Your task to perform on an android device: Go to accessibility settings Image 0: 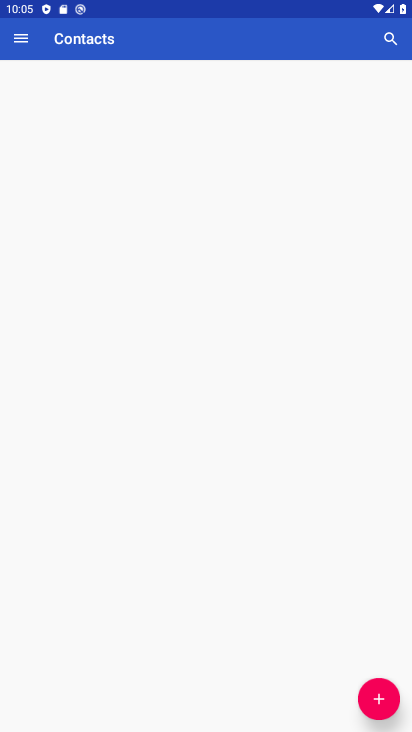
Step 0: drag from (375, 634) to (272, 41)
Your task to perform on an android device: Go to accessibility settings Image 1: 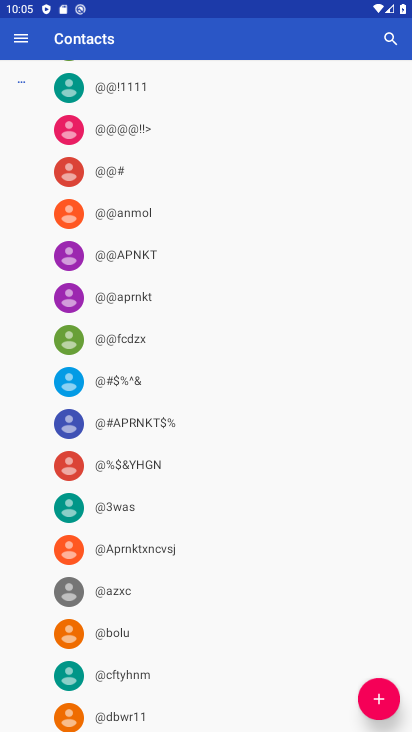
Step 1: press home button
Your task to perform on an android device: Go to accessibility settings Image 2: 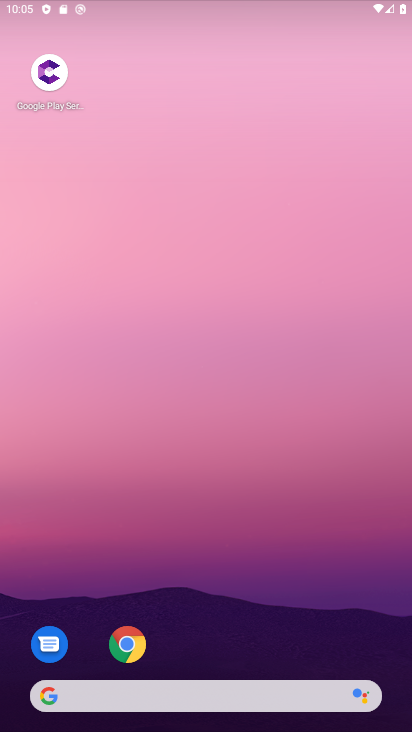
Step 2: drag from (361, 645) to (265, 16)
Your task to perform on an android device: Go to accessibility settings Image 3: 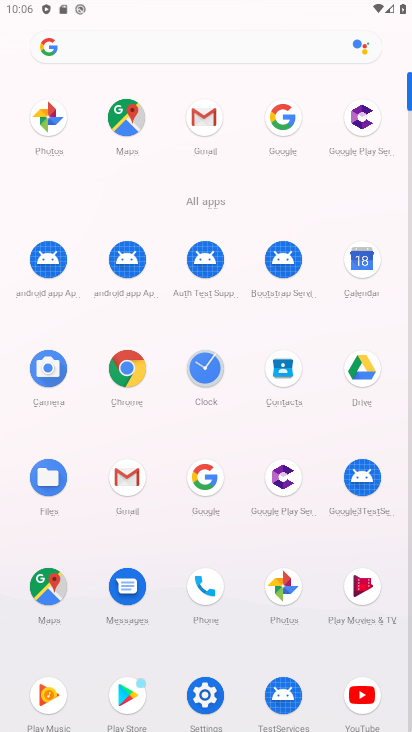
Step 3: click (207, 699)
Your task to perform on an android device: Go to accessibility settings Image 4: 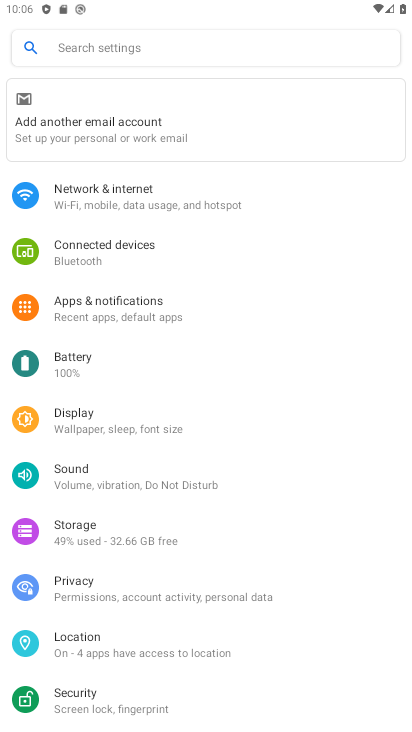
Step 4: drag from (97, 651) to (175, 238)
Your task to perform on an android device: Go to accessibility settings Image 5: 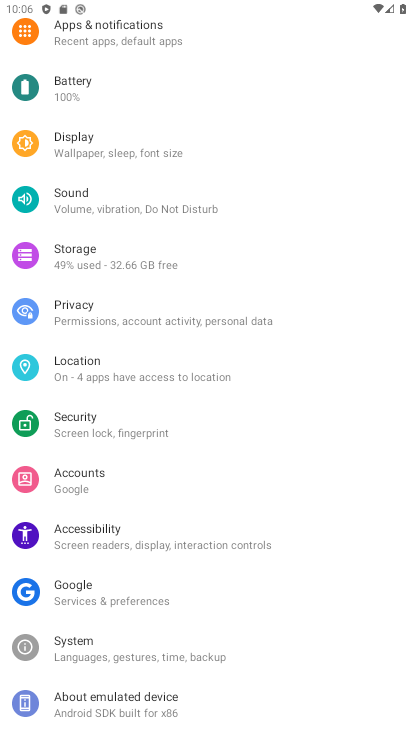
Step 5: click (121, 532)
Your task to perform on an android device: Go to accessibility settings Image 6: 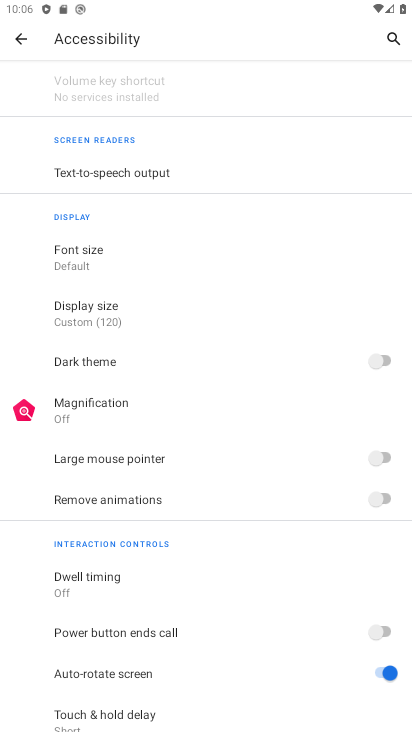
Step 6: task complete